Your task to perform on an android device: Clear all items from cart on walmart.com. Search for "alienware aurora" on walmart.com, select the first entry, add it to the cart, then select checkout. Image 0: 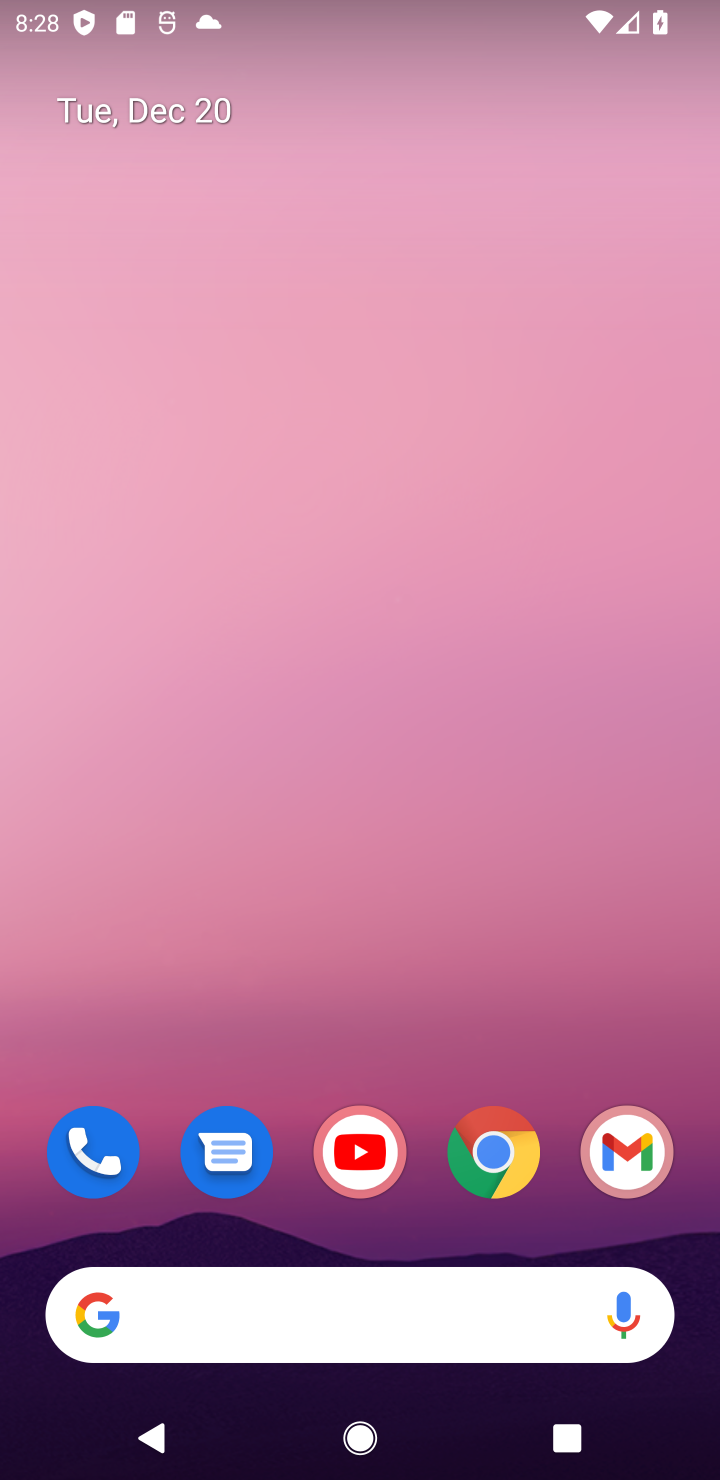
Step 0: click (504, 1157)
Your task to perform on an android device: Clear all items from cart on walmart.com. Search for "alienware aurora" on walmart.com, select the first entry, add it to the cart, then select checkout. Image 1: 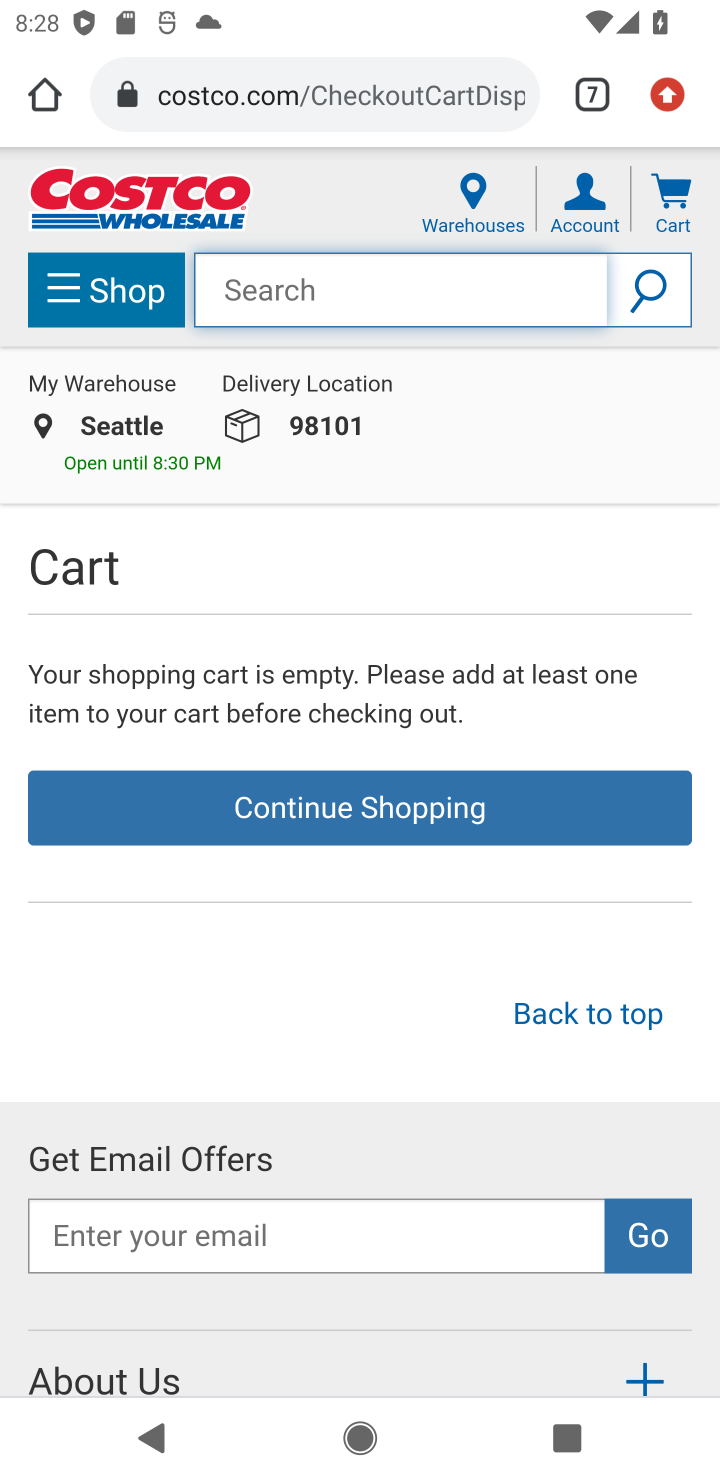
Step 1: click (584, 89)
Your task to perform on an android device: Clear all items from cart on walmart.com. Search for "alienware aurora" on walmart.com, select the first entry, add it to the cart, then select checkout. Image 2: 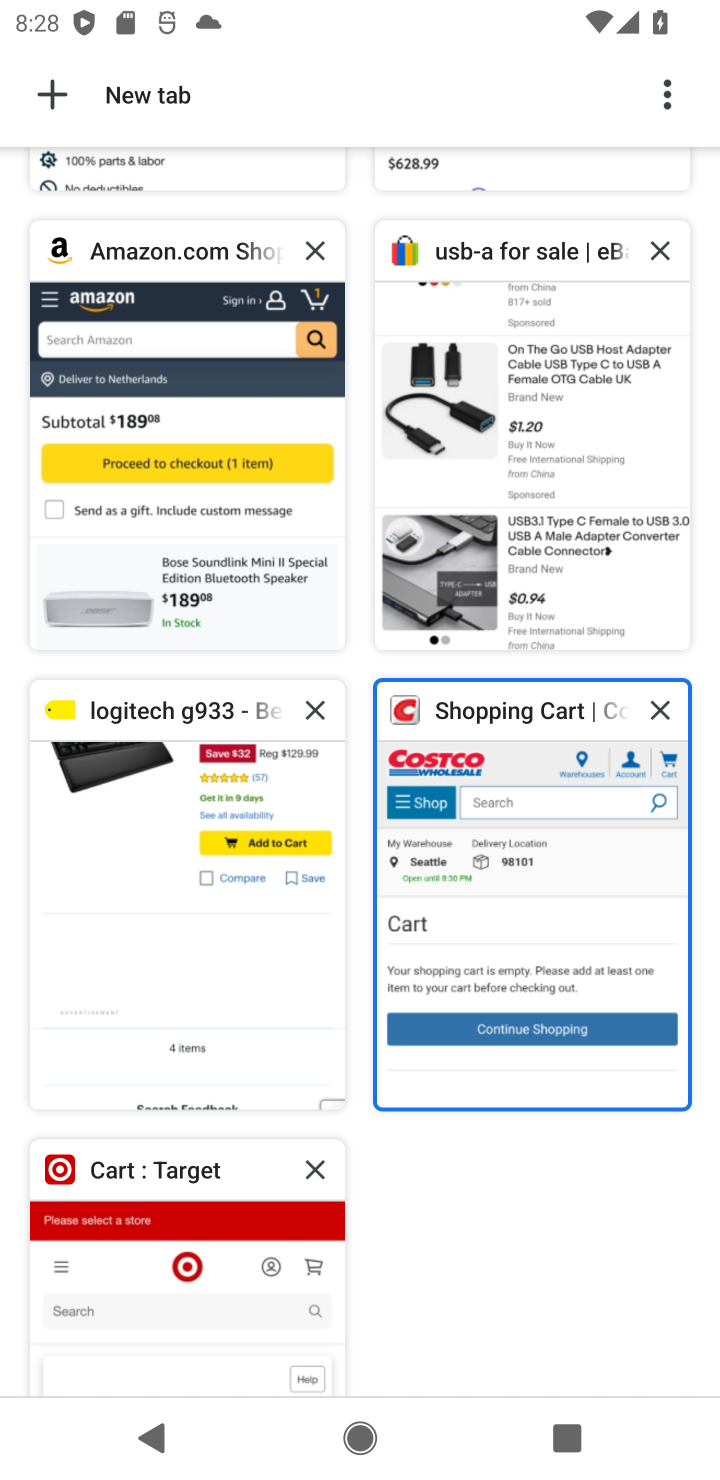
Step 2: drag from (343, 335) to (327, 869)
Your task to perform on an android device: Clear all items from cart on walmart.com. Search for "alienware aurora" on walmart.com, select the first entry, add it to the cart, then select checkout. Image 3: 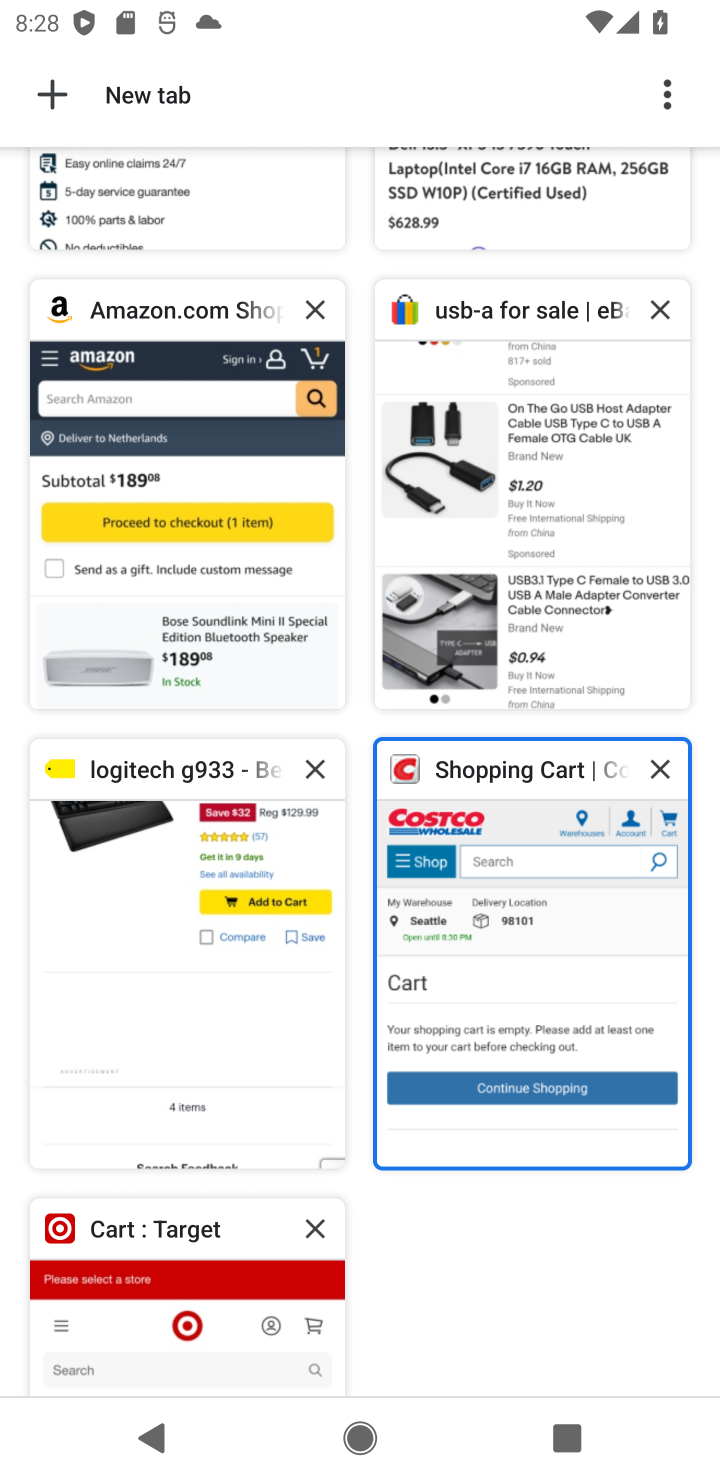
Step 3: drag from (522, 210) to (471, 1057)
Your task to perform on an android device: Clear all items from cart on walmart.com. Search for "alienware aurora" on walmart.com, select the first entry, add it to the cart, then select checkout. Image 4: 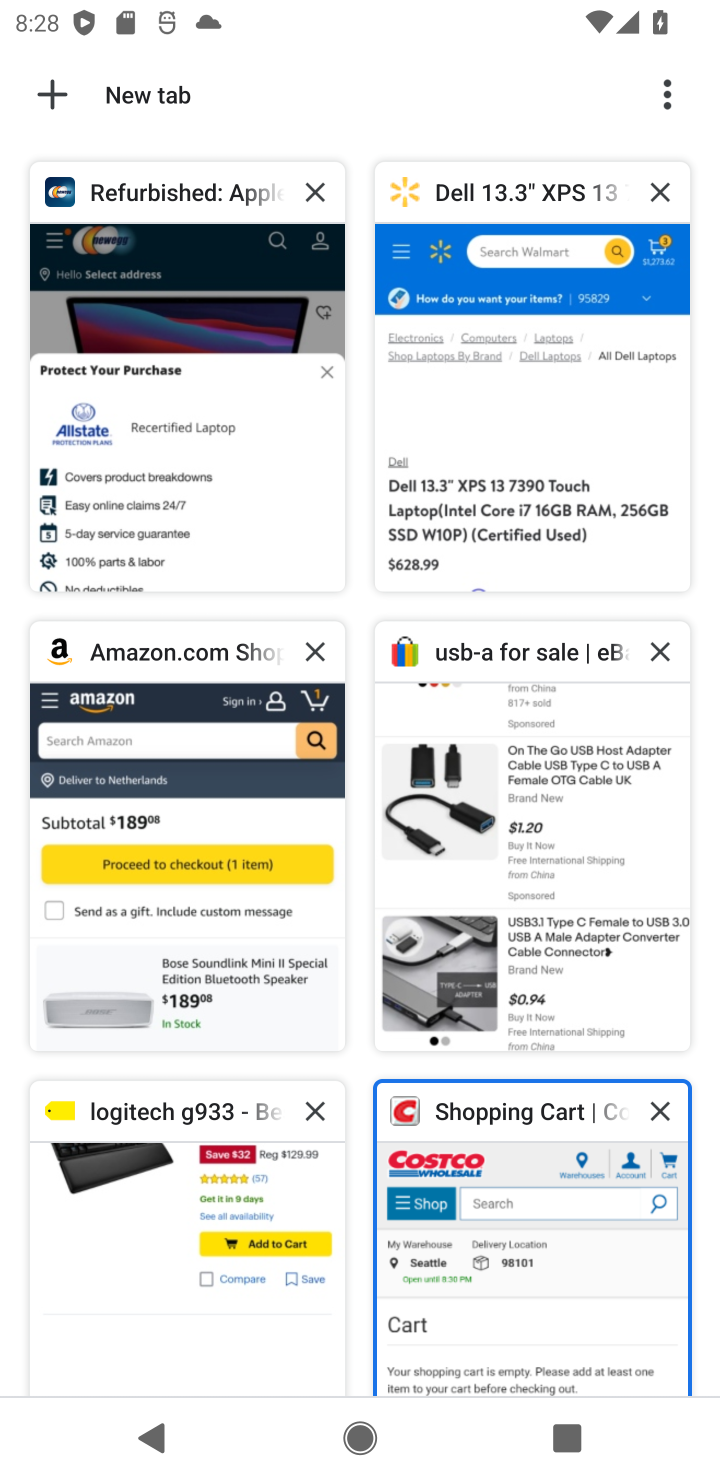
Step 4: click (545, 324)
Your task to perform on an android device: Clear all items from cart on walmart.com. Search for "alienware aurora" on walmart.com, select the first entry, add it to the cart, then select checkout. Image 5: 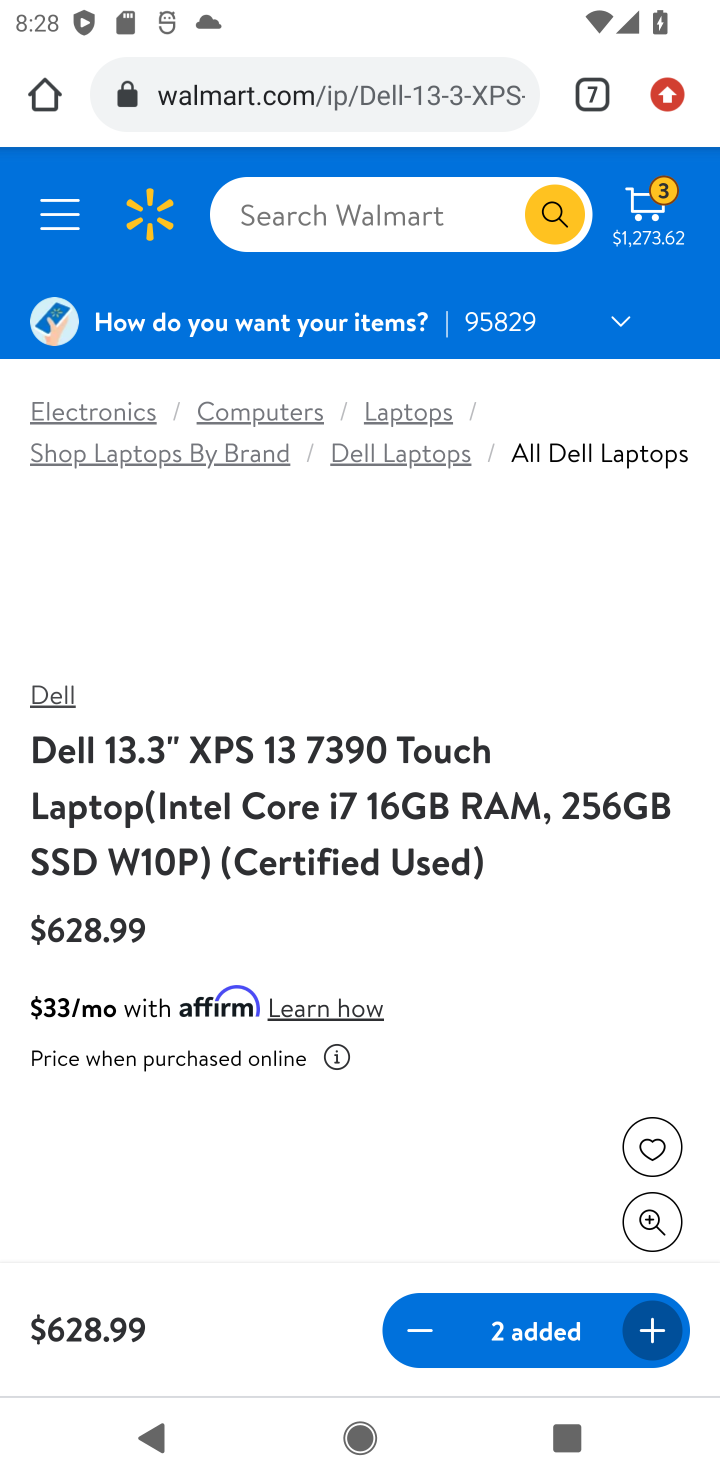
Step 5: click (332, 213)
Your task to perform on an android device: Clear all items from cart on walmart.com. Search for "alienware aurora" on walmart.com, select the first entry, add it to the cart, then select checkout. Image 6: 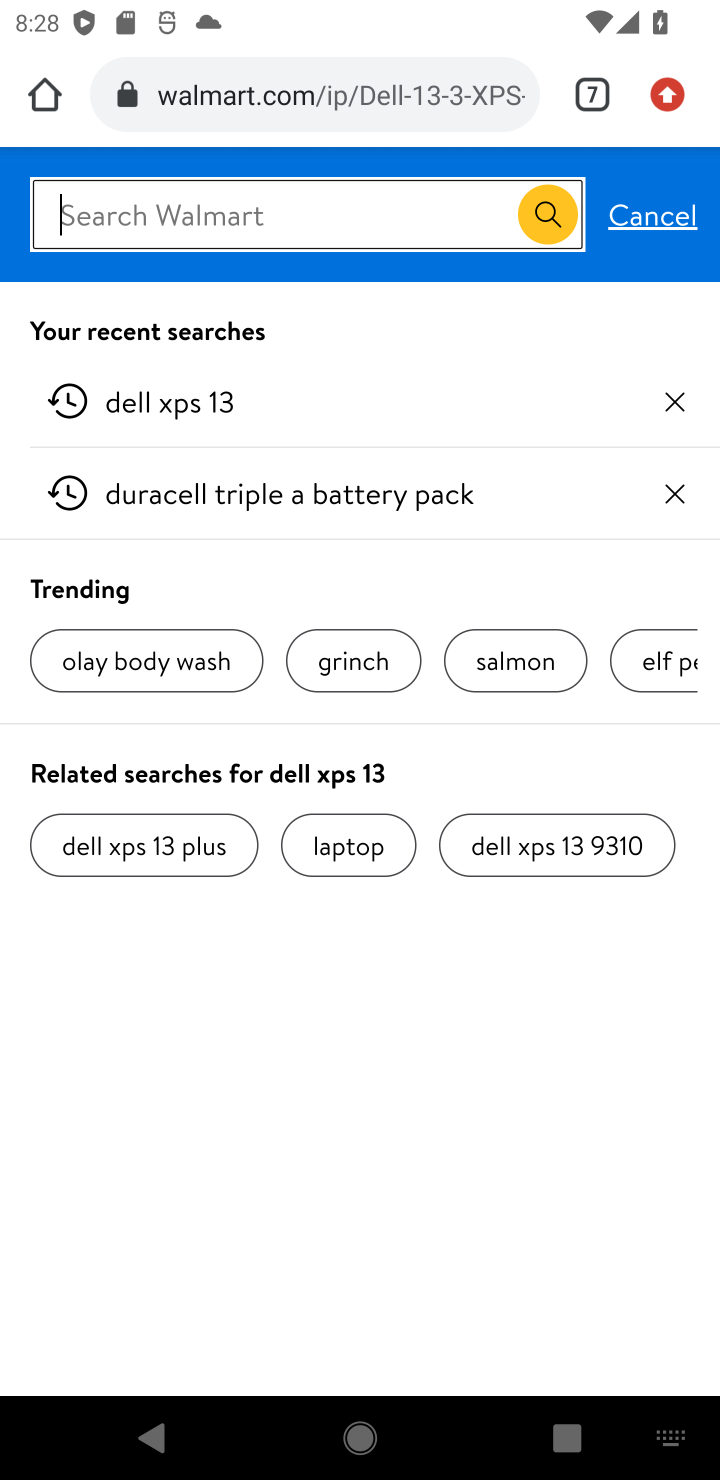
Step 6: type "alienware aurora"
Your task to perform on an android device: Clear all items from cart on walmart.com. Search for "alienware aurora" on walmart.com, select the first entry, add it to the cart, then select checkout. Image 7: 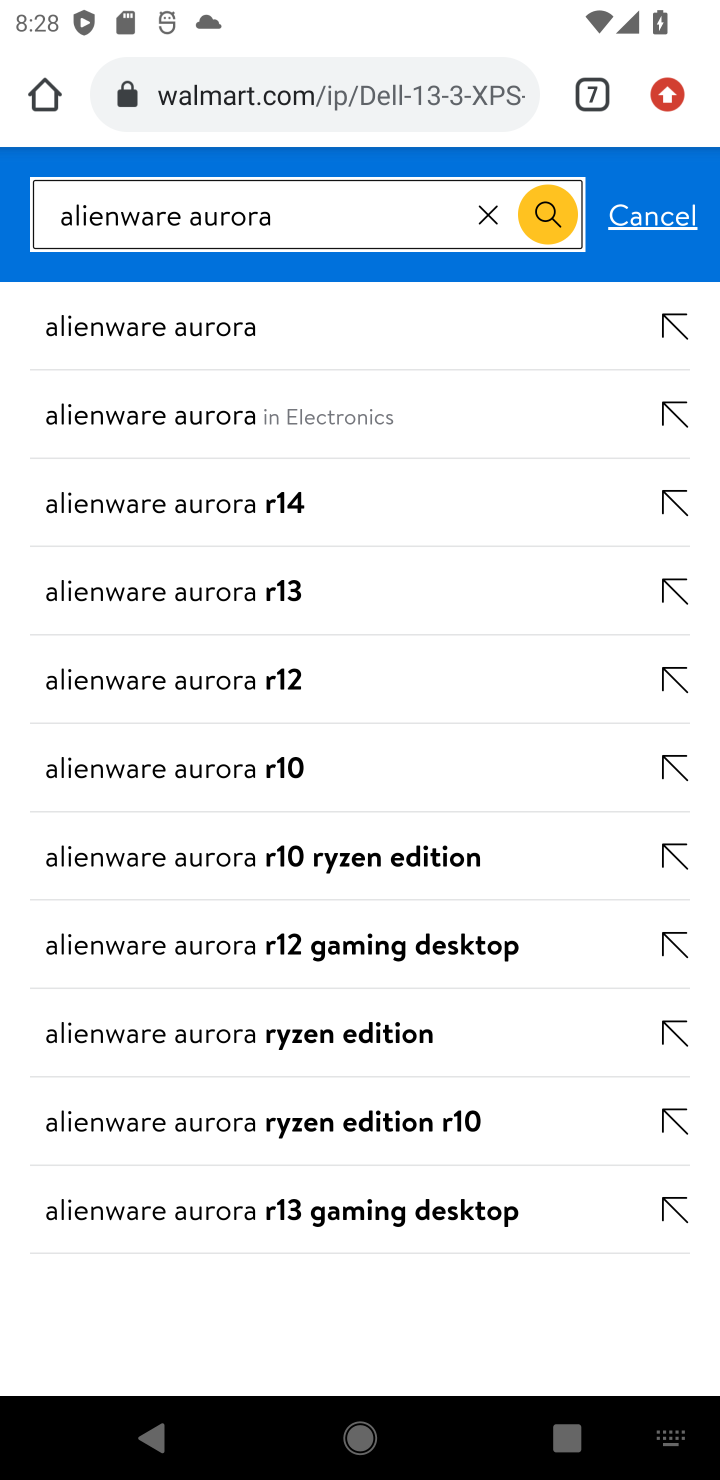
Step 7: click (223, 413)
Your task to perform on an android device: Clear all items from cart on walmart.com. Search for "alienware aurora" on walmart.com, select the first entry, add it to the cart, then select checkout. Image 8: 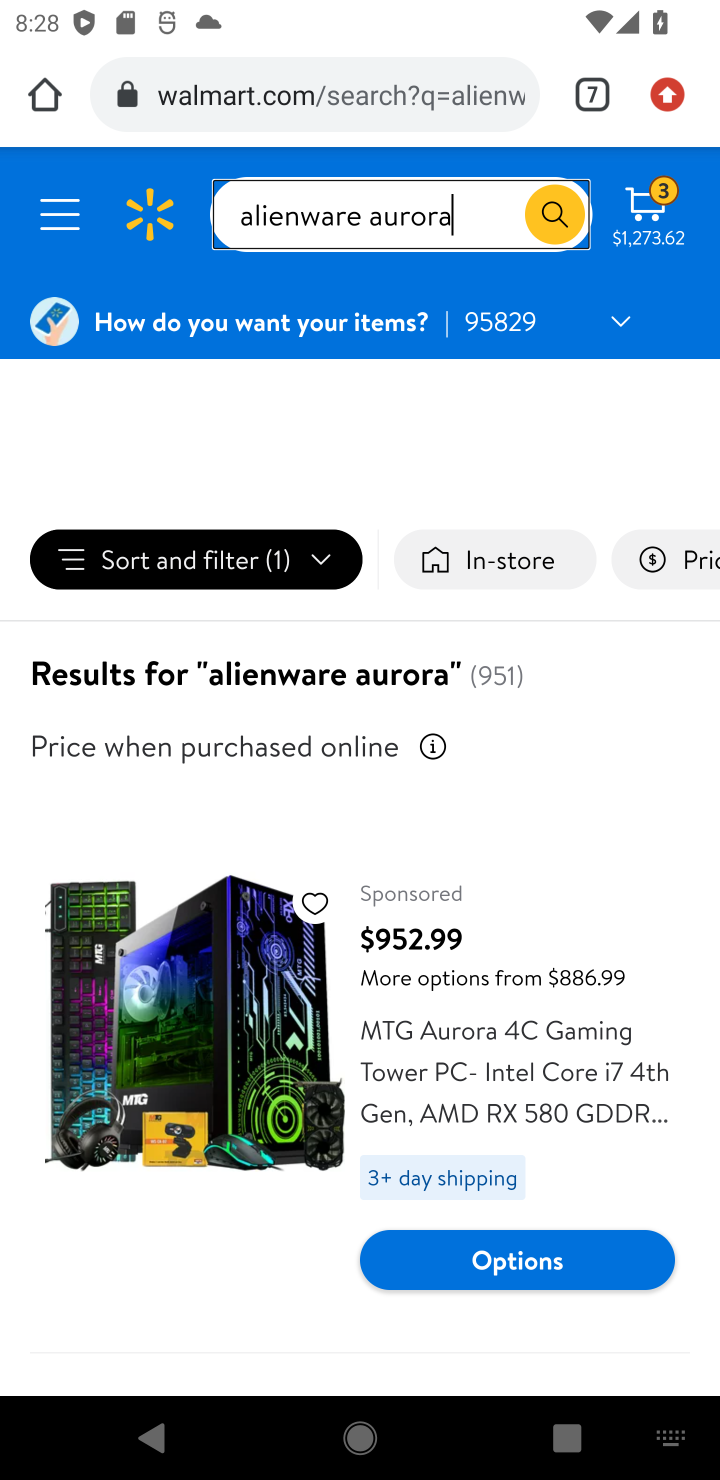
Step 8: drag from (419, 1069) to (475, 610)
Your task to perform on an android device: Clear all items from cart on walmart.com. Search for "alienware aurora" on walmart.com, select the first entry, add it to the cart, then select checkout. Image 9: 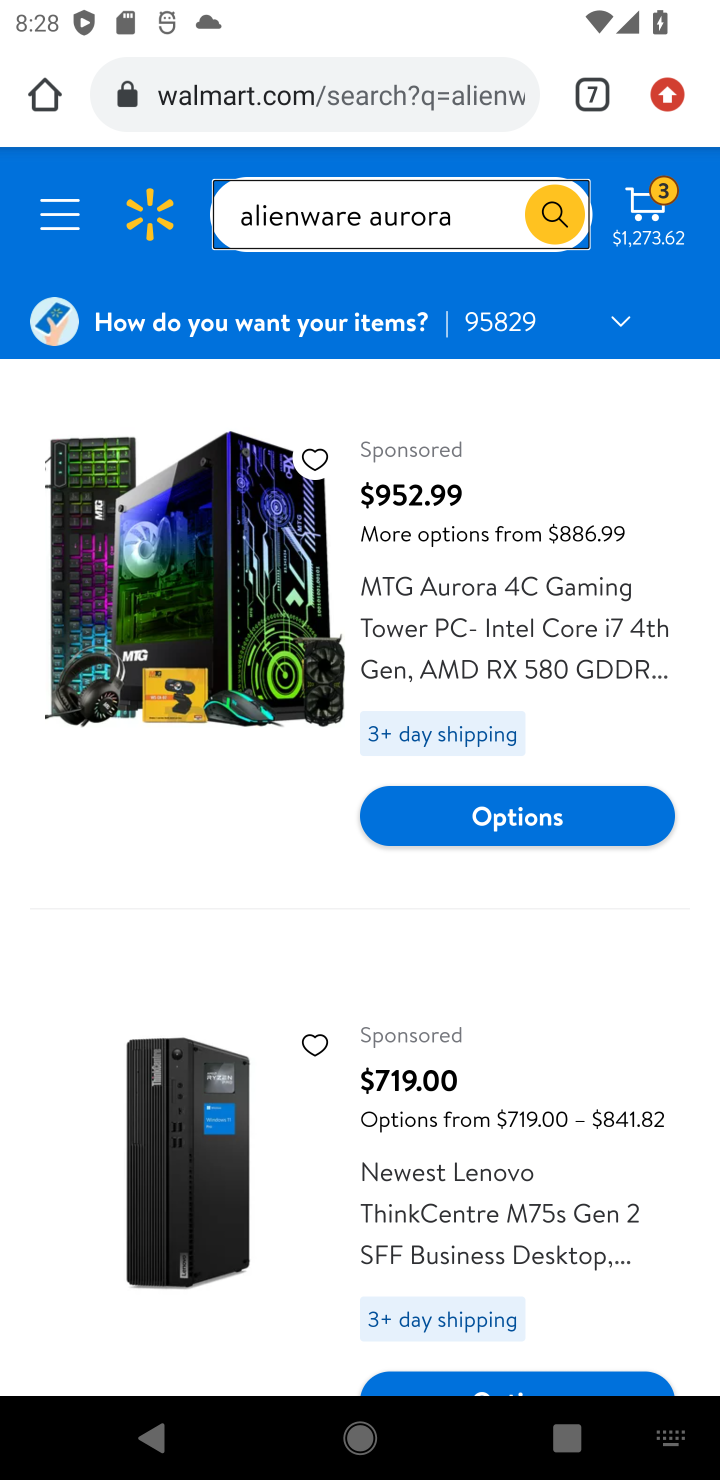
Step 9: drag from (383, 1134) to (615, 609)
Your task to perform on an android device: Clear all items from cart on walmart.com. Search for "alienware aurora" on walmart.com, select the first entry, add it to the cart, then select checkout. Image 10: 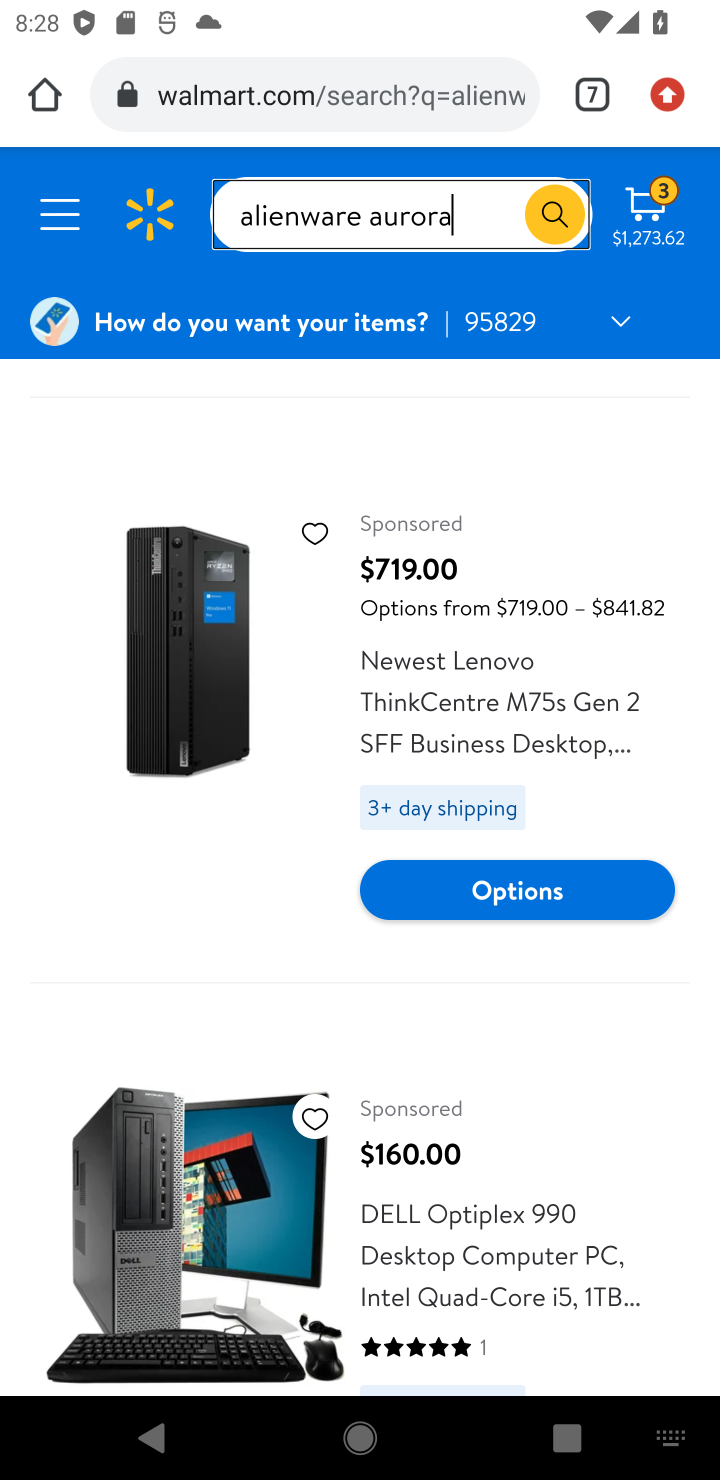
Step 10: drag from (582, 1319) to (540, 730)
Your task to perform on an android device: Clear all items from cart on walmart.com. Search for "alienware aurora" on walmart.com, select the first entry, add it to the cart, then select checkout. Image 11: 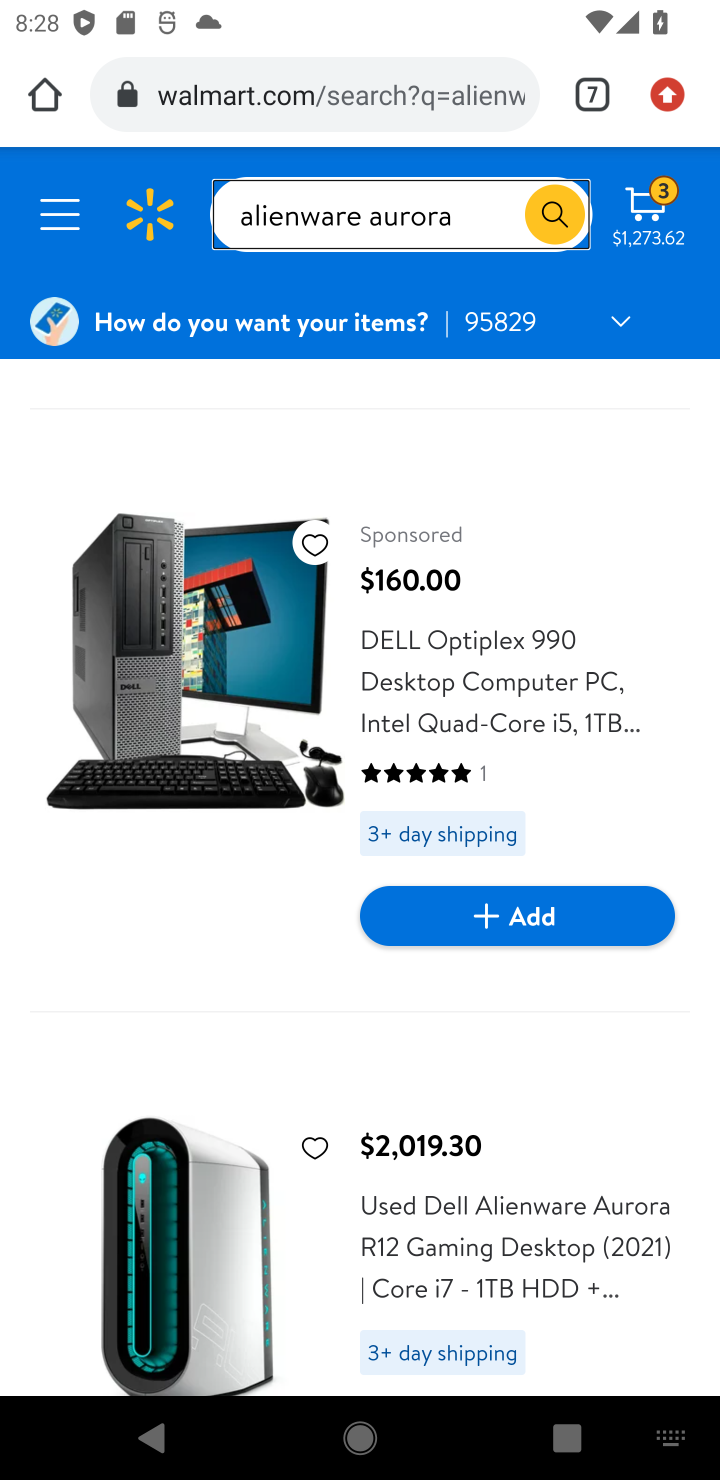
Step 11: drag from (477, 1115) to (552, 301)
Your task to perform on an android device: Clear all items from cart on walmart.com. Search for "alienware aurora" on walmart.com, select the first entry, add it to the cart, then select checkout. Image 12: 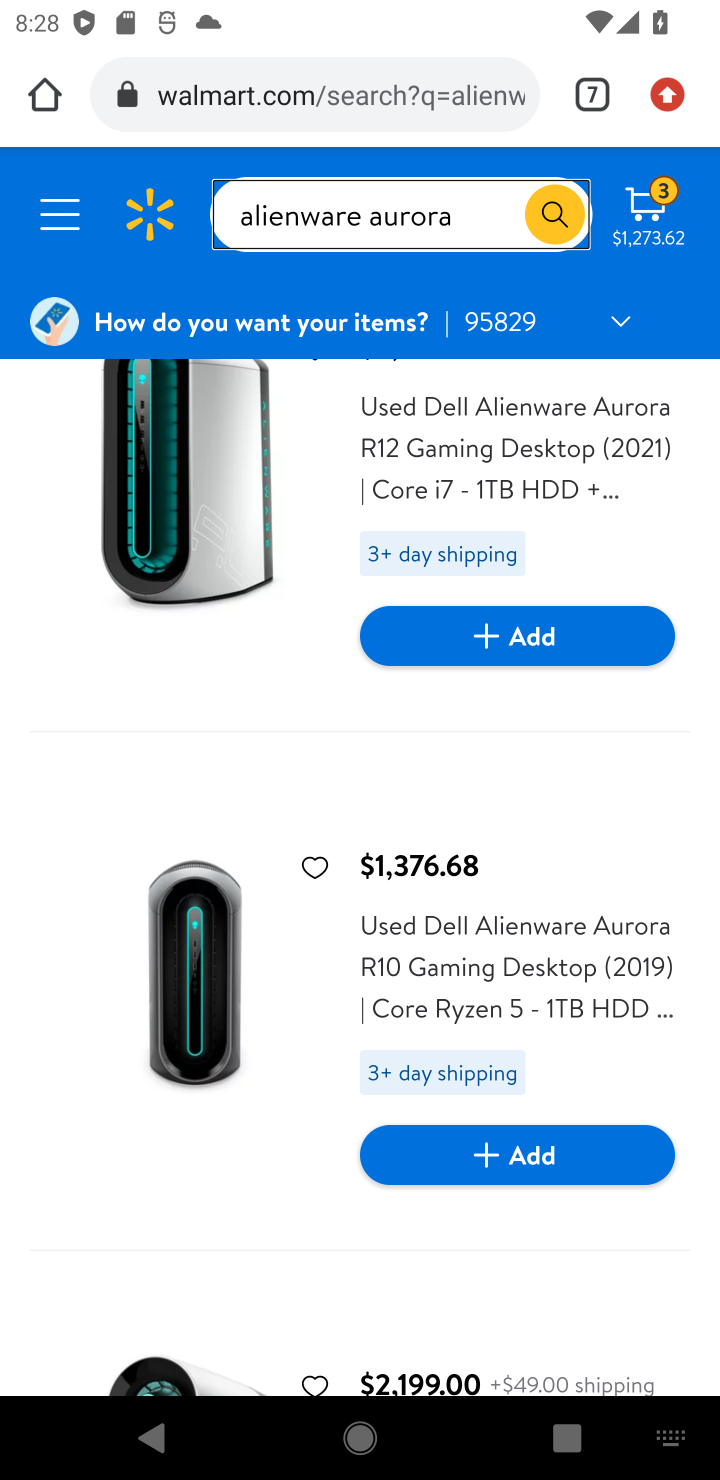
Step 12: click (527, 1155)
Your task to perform on an android device: Clear all items from cart on walmart.com. Search for "alienware aurora" on walmart.com, select the first entry, add it to the cart, then select checkout. Image 13: 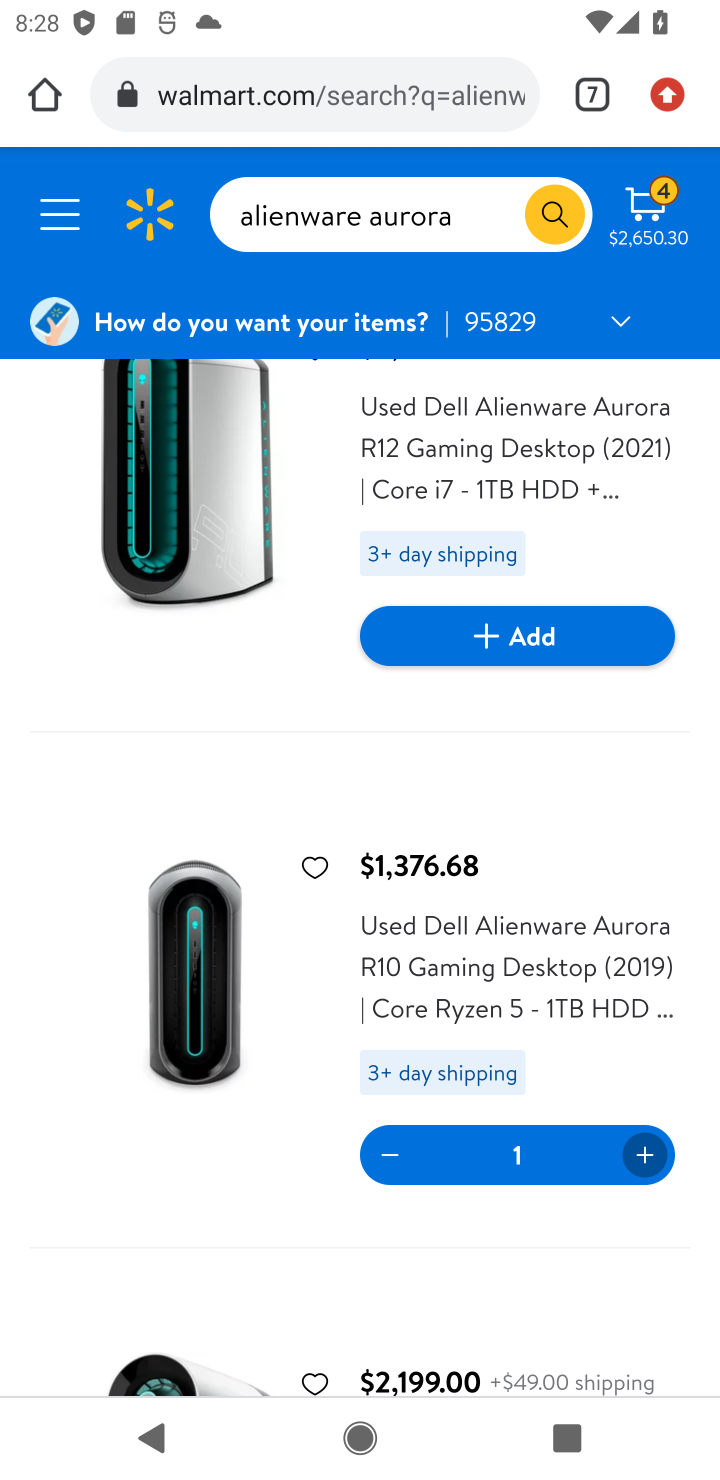
Step 13: task complete